Your task to perform on an android device: Go to Yahoo.com Image 0: 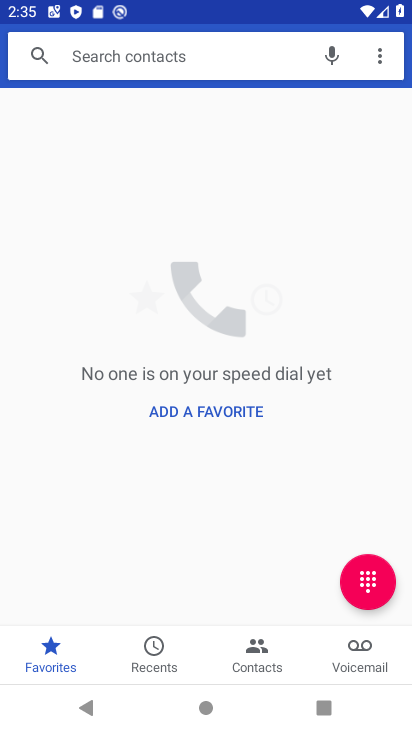
Step 0: press home button
Your task to perform on an android device: Go to Yahoo.com Image 1: 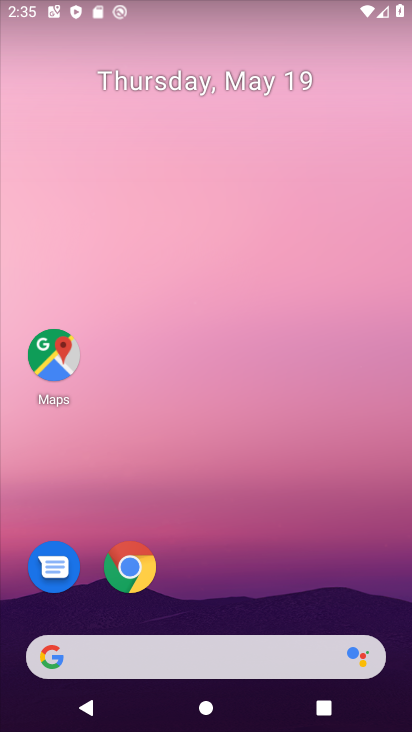
Step 1: click (129, 560)
Your task to perform on an android device: Go to Yahoo.com Image 2: 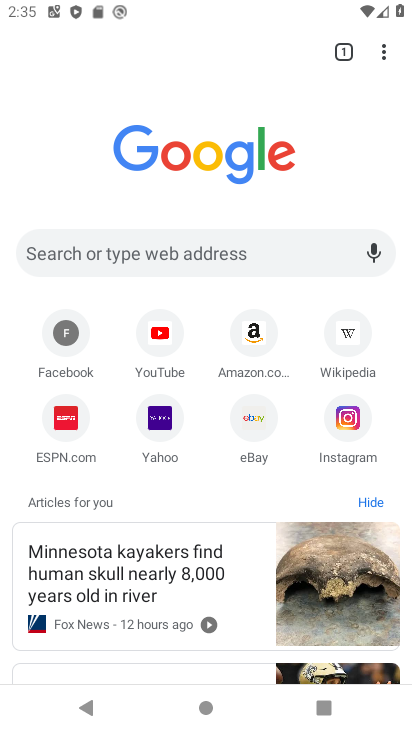
Step 2: click (269, 246)
Your task to perform on an android device: Go to Yahoo.com Image 3: 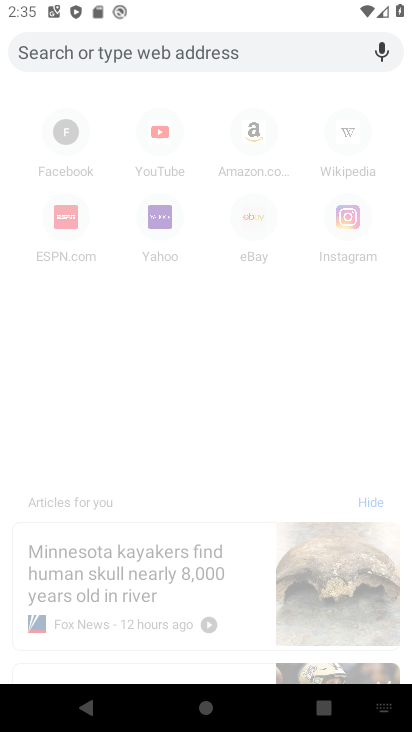
Step 3: type "yahoo.com"
Your task to perform on an android device: Go to Yahoo.com Image 4: 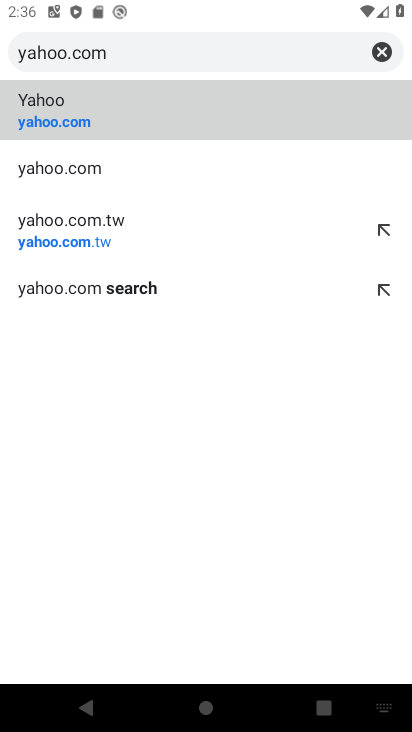
Step 4: click (35, 105)
Your task to perform on an android device: Go to Yahoo.com Image 5: 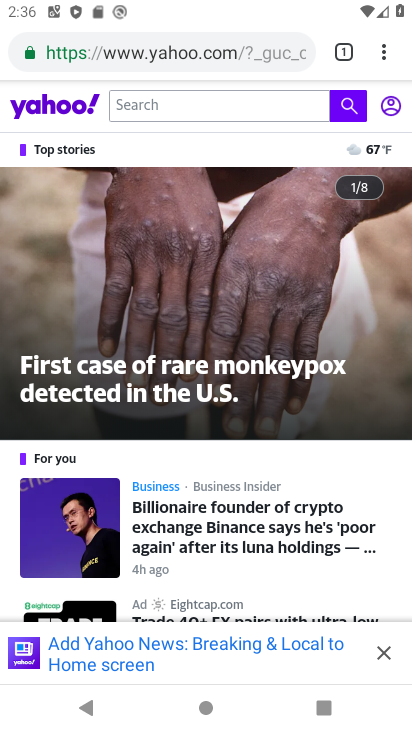
Step 5: task complete